Your task to perform on an android device: toggle sleep mode Image 0: 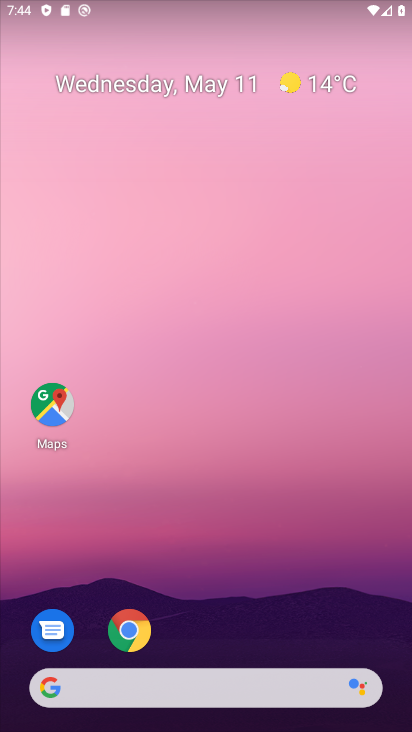
Step 0: drag from (190, 408) to (327, 705)
Your task to perform on an android device: toggle sleep mode Image 1: 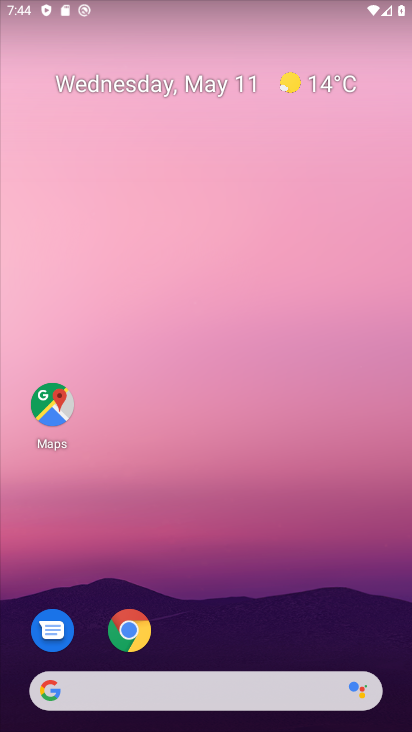
Step 1: drag from (224, 672) to (203, 40)
Your task to perform on an android device: toggle sleep mode Image 2: 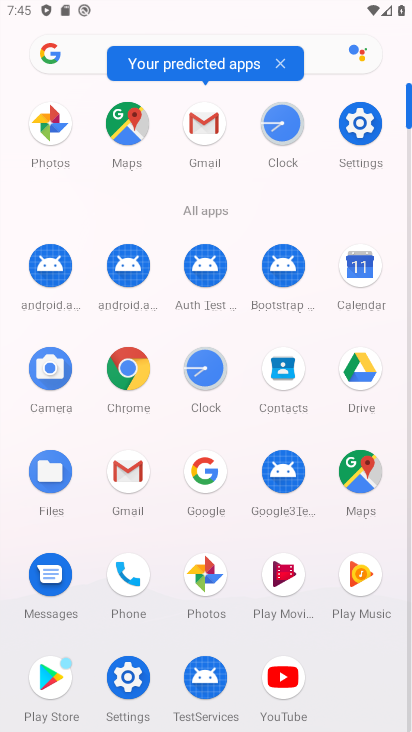
Step 2: click (366, 124)
Your task to perform on an android device: toggle sleep mode Image 3: 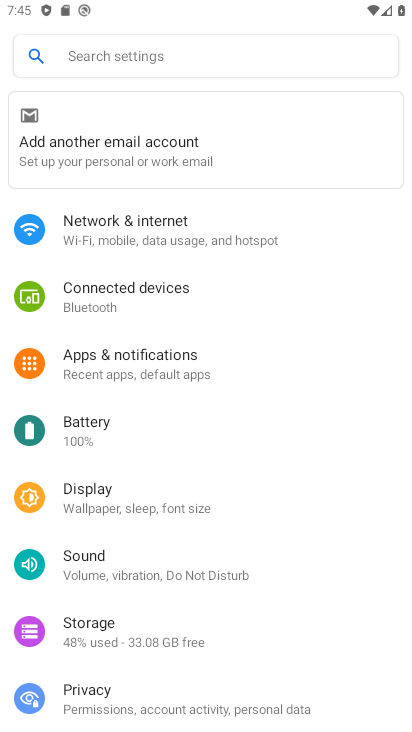
Step 3: click (113, 496)
Your task to perform on an android device: toggle sleep mode Image 4: 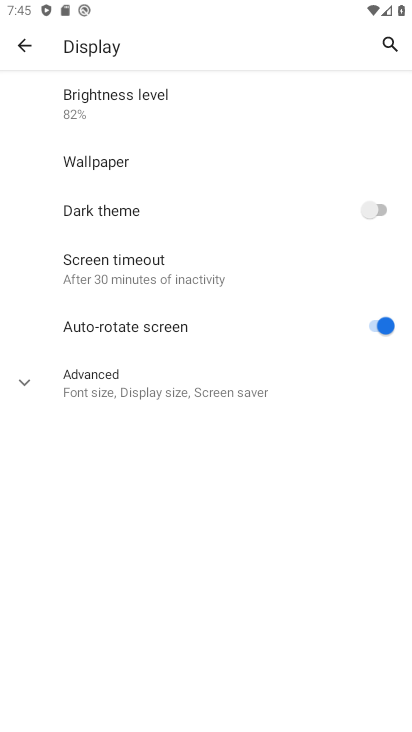
Step 4: click (86, 373)
Your task to perform on an android device: toggle sleep mode Image 5: 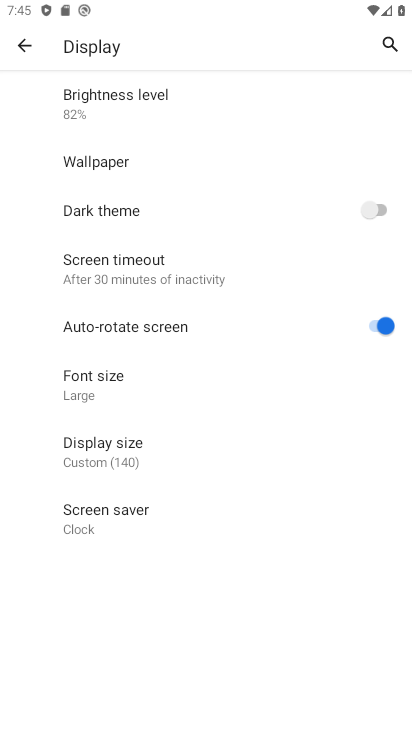
Step 5: task complete